Your task to perform on an android device: turn on sleep mode Image 0: 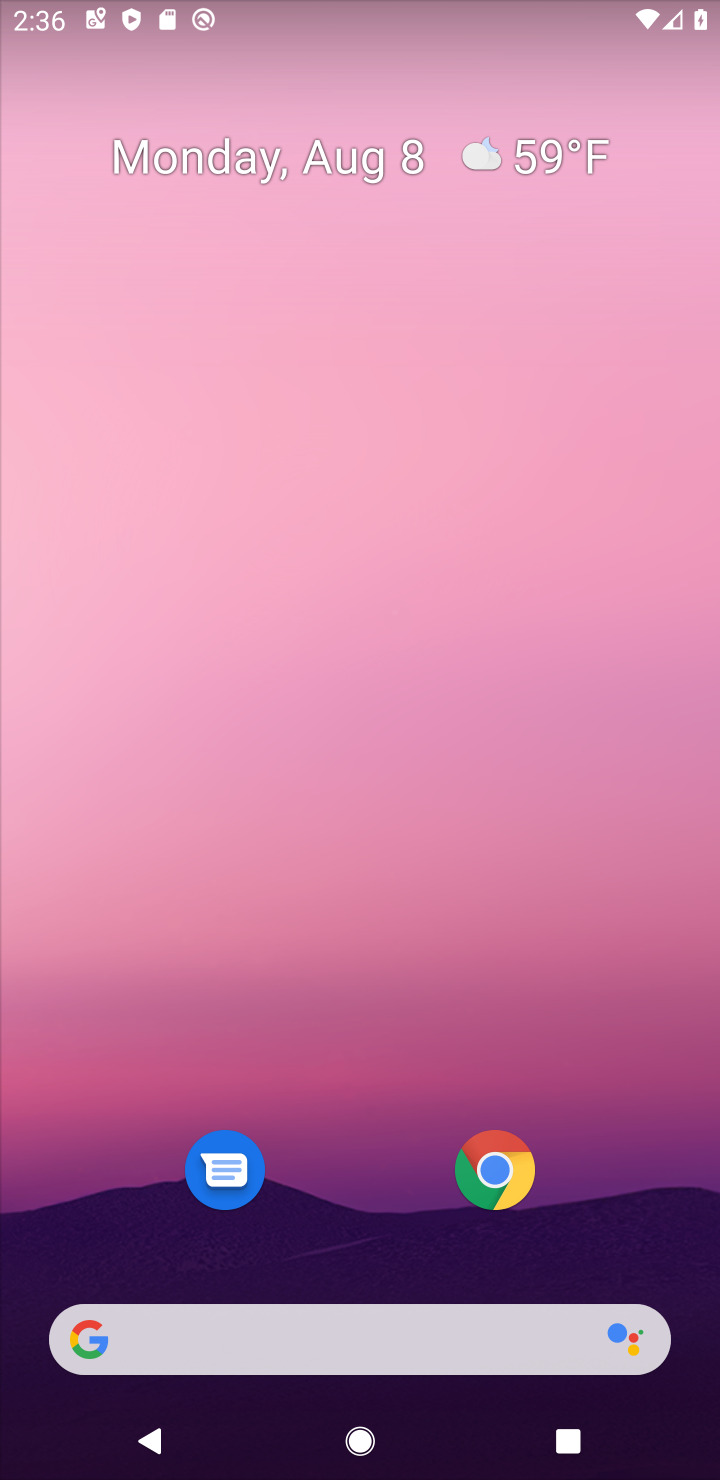
Step 0: drag from (395, 624) to (395, 327)
Your task to perform on an android device: turn on sleep mode Image 1: 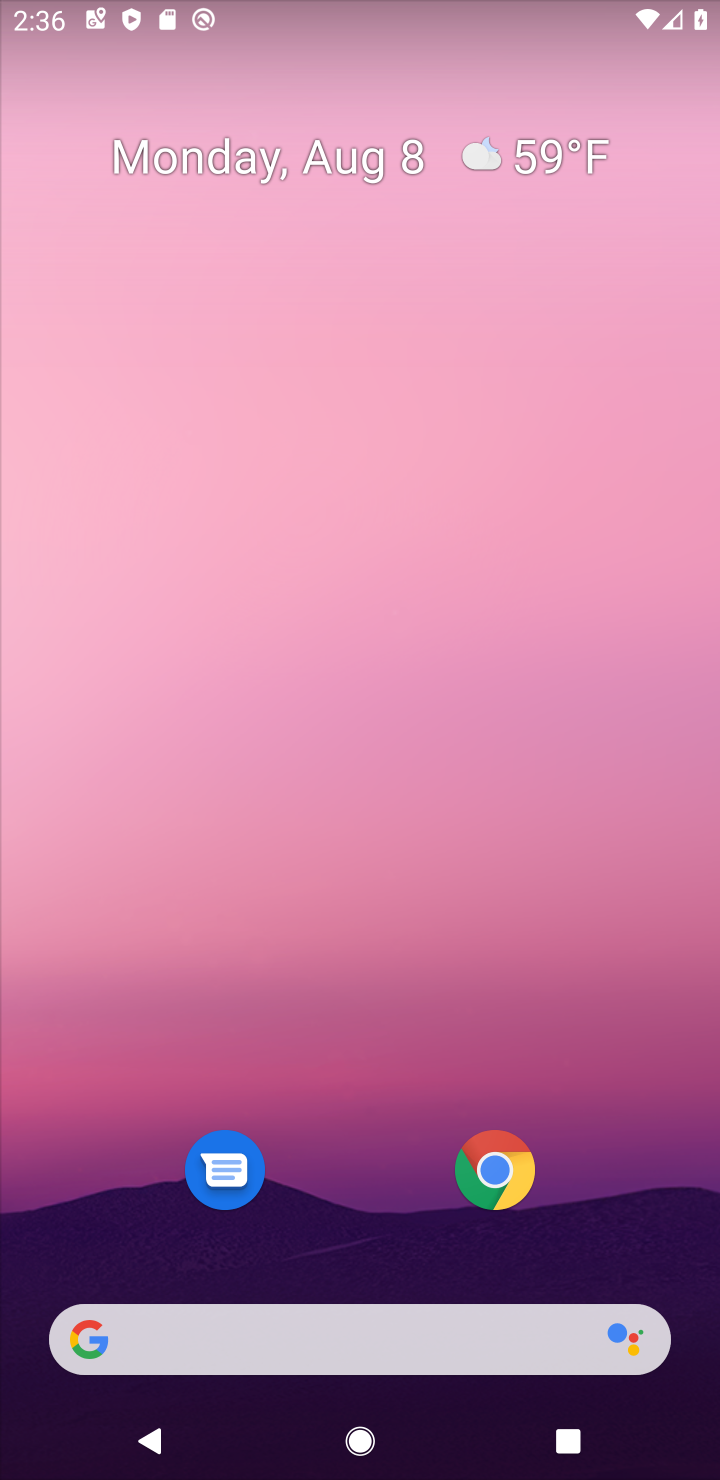
Step 1: drag from (374, 1164) to (369, 333)
Your task to perform on an android device: turn on sleep mode Image 2: 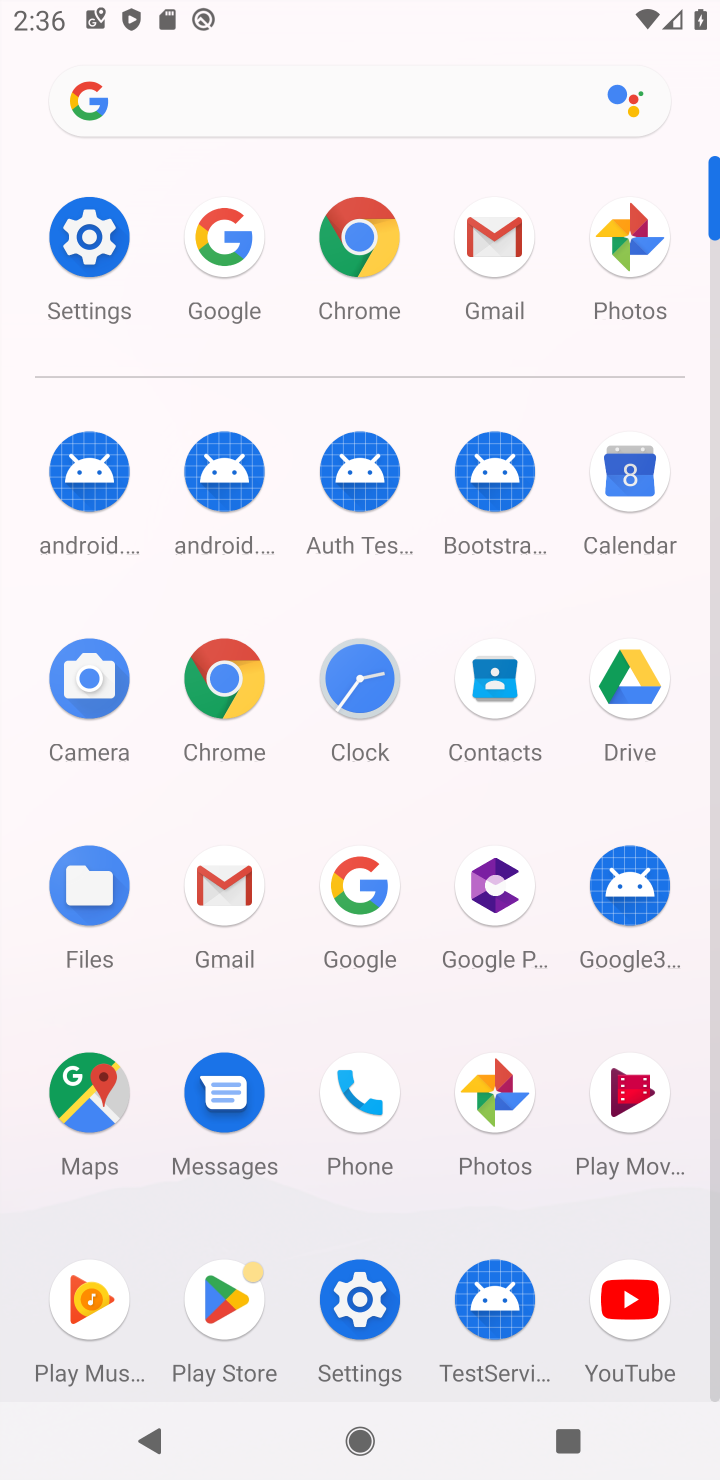
Step 2: click (81, 236)
Your task to perform on an android device: turn on sleep mode Image 3: 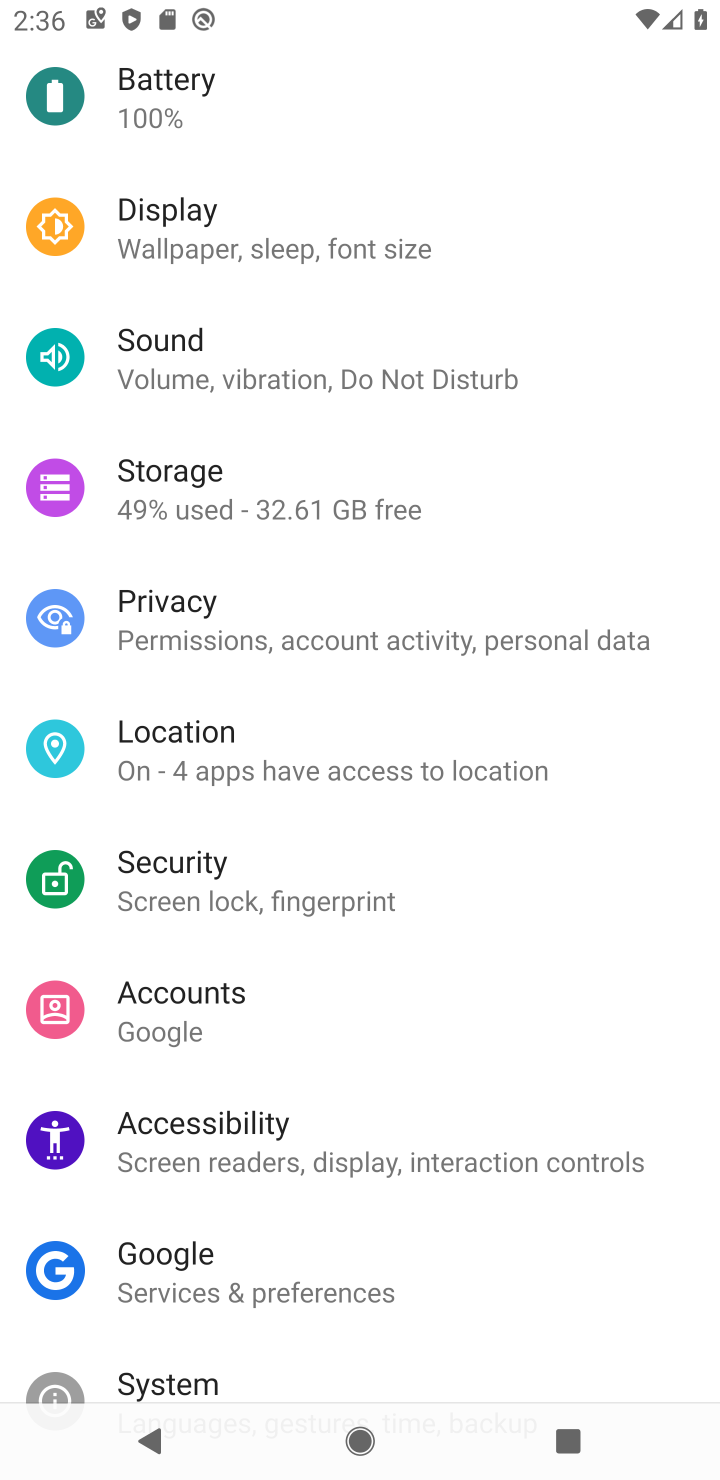
Step 3: click (237, 262)
Your task to perform on an android device: turn on sleep mode Image 4: 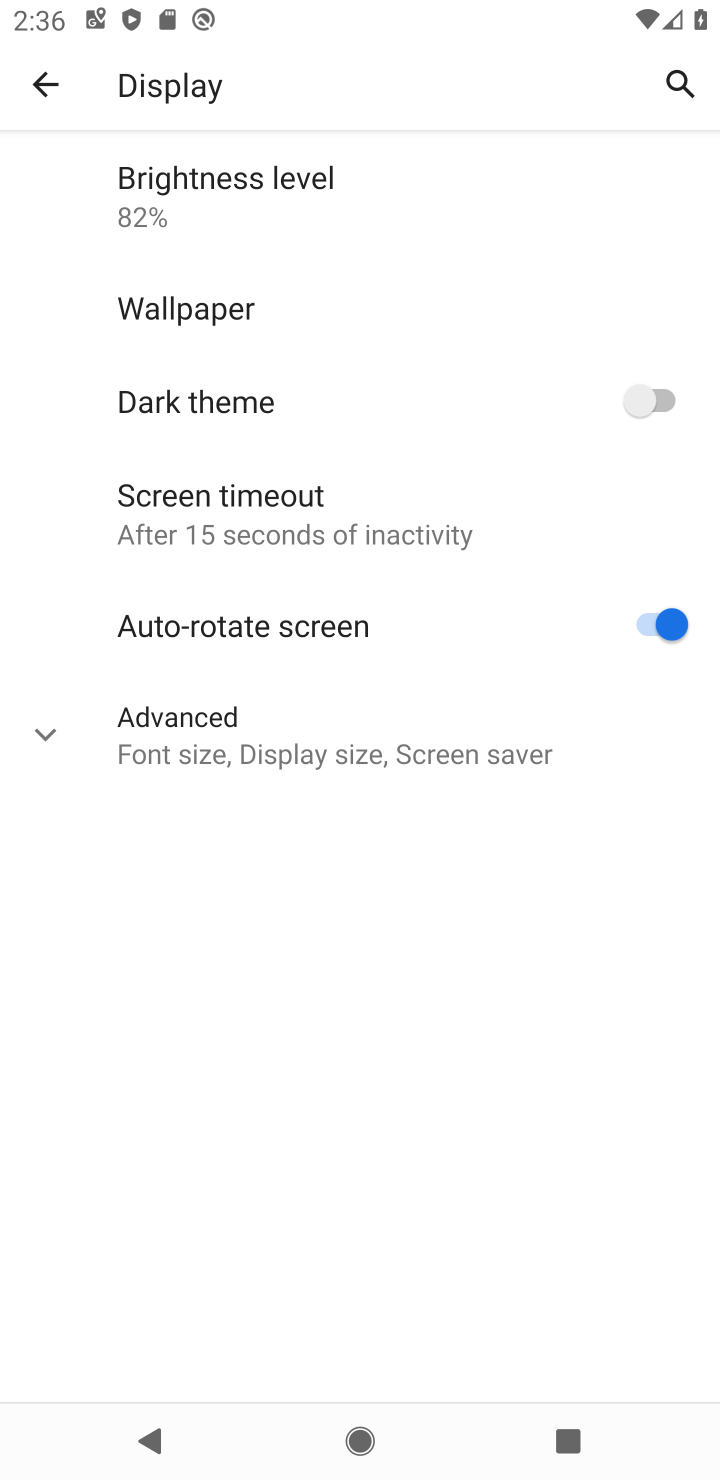
Step 4: click (322, 494)
Your task to perform on an android device: turn on sleep mode Image 5: 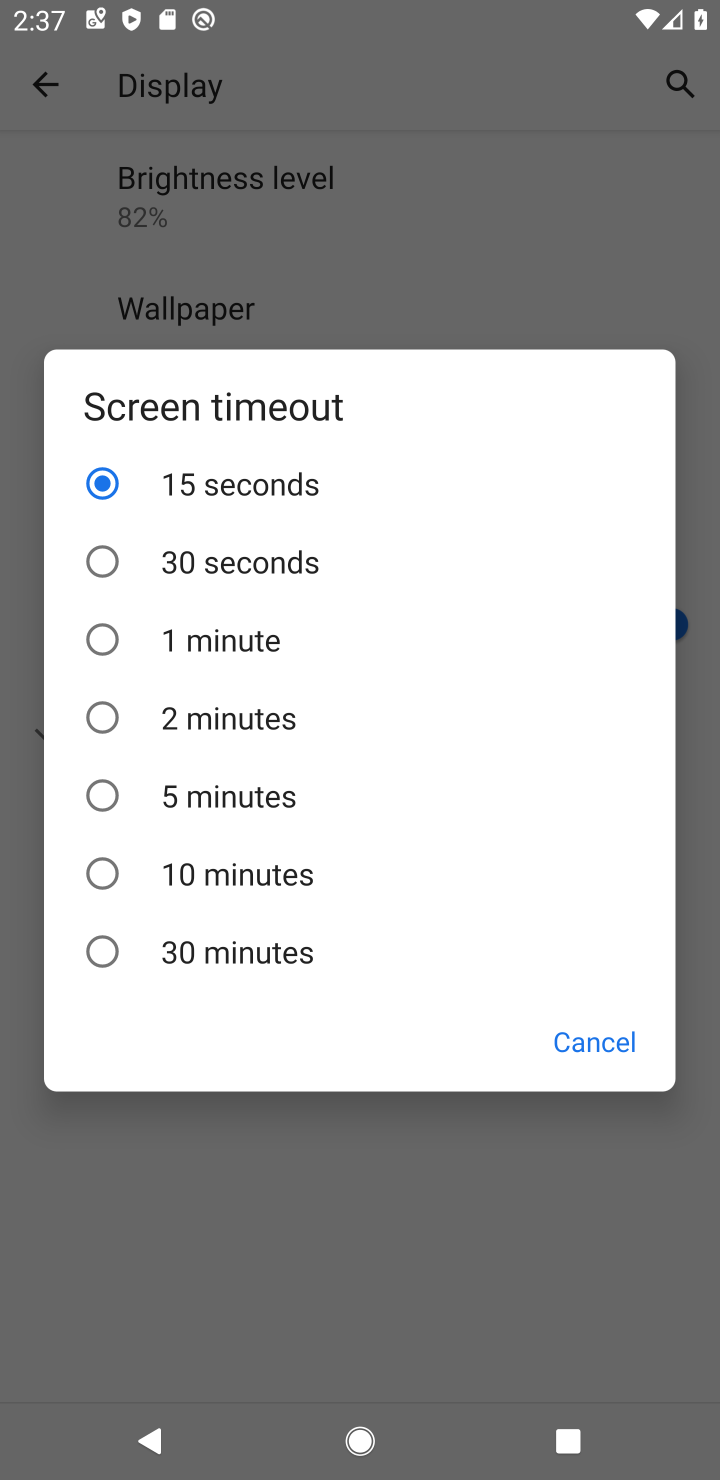
Step 5: click (204, 861)
Your task to perform on an android device: turn on sleep mode Image 6: 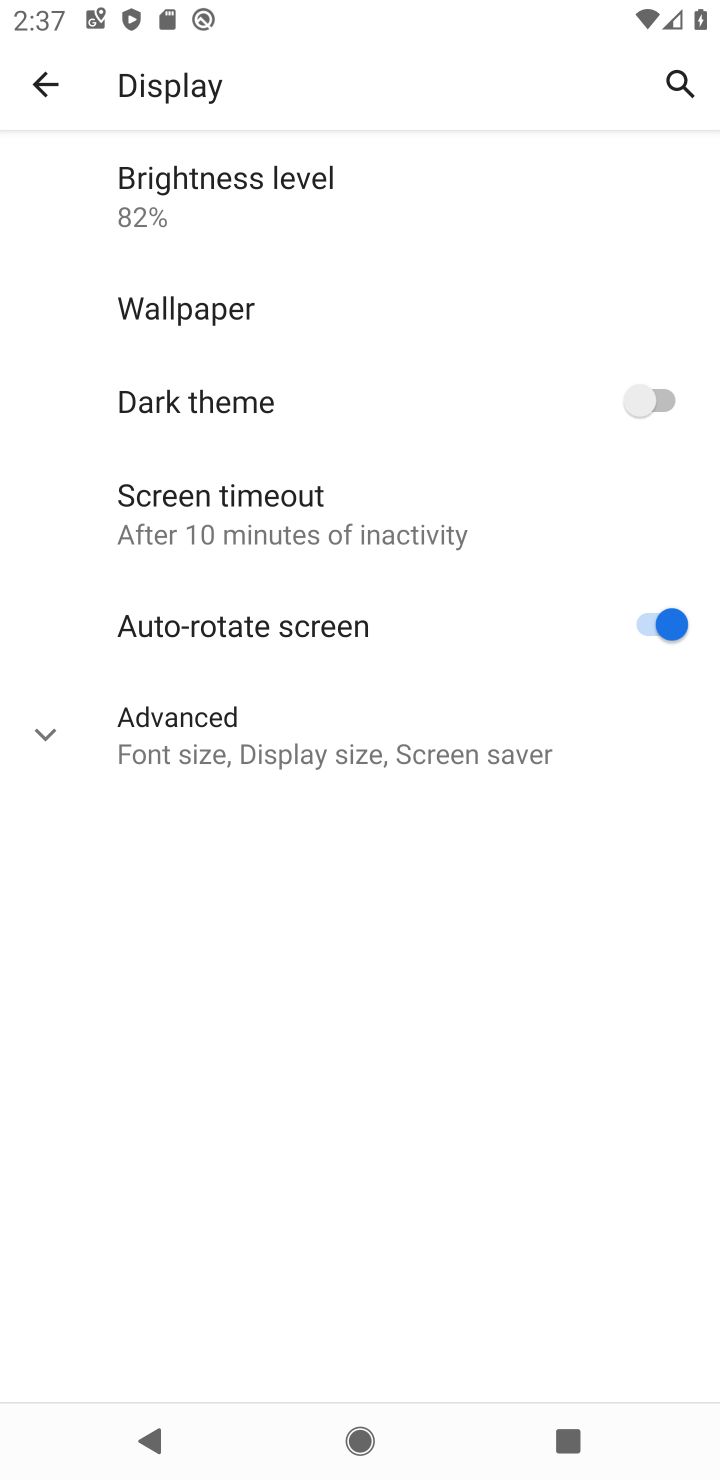
Step 6: task complete